Your task to perform on an android device: Open CNN.com Image 0: 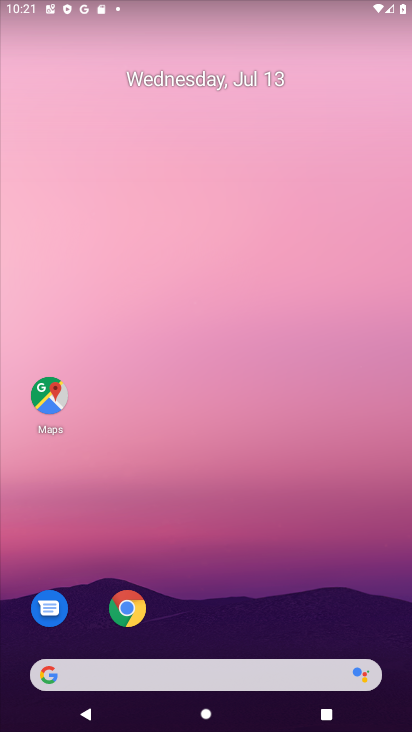
Step 0: click (128, 608)
Your task to perform on an android device: Open CNN.com Image 1: 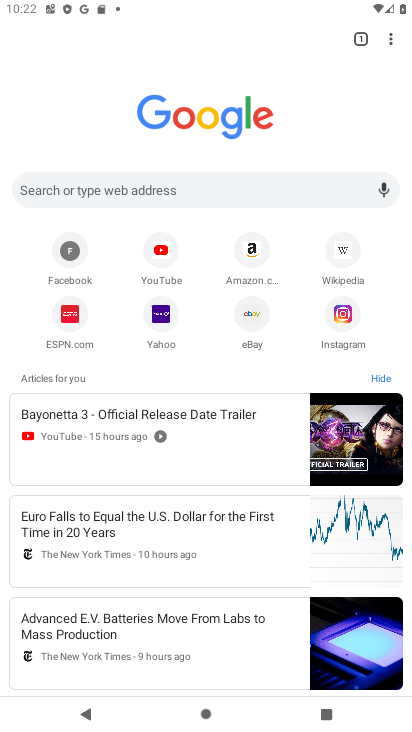
Step 1: click (251, 192)
Your task to perform on an android device: Open CNN.com Image 2: 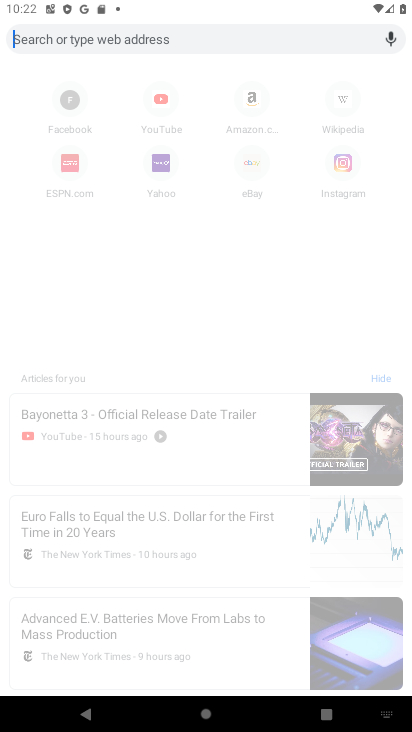
Step 2: type "CNN.com"
Your task to perform on an android device: Open CNN.com Image 3: 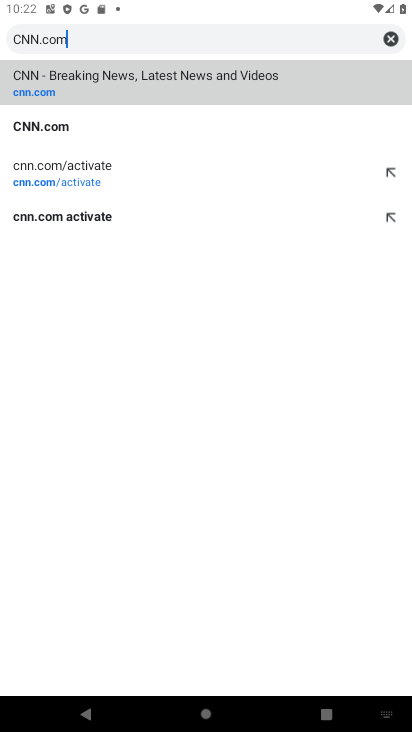
Step 3: type ""
Your task to perform on an android device: Open CNN.com Image 4: 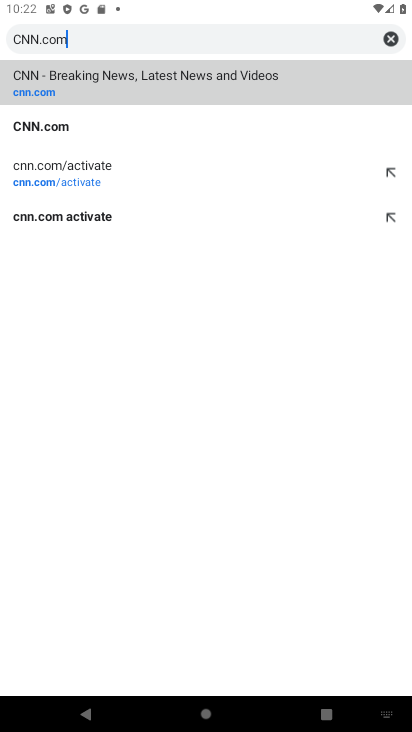
Step 4: click (57, 129)
Your task to perform on an android device: Open CNN.com Image 5: 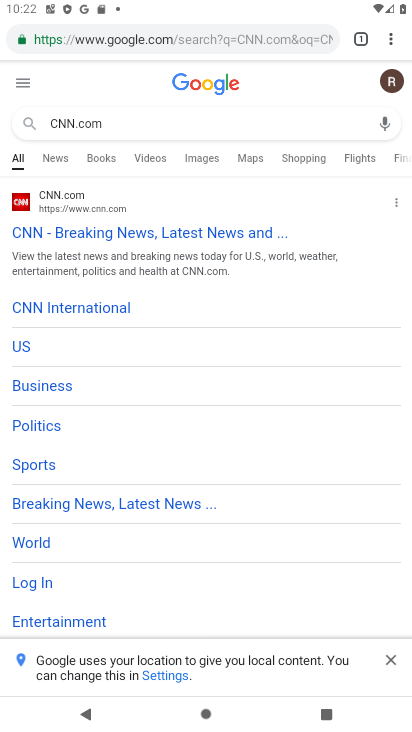
Step 5: click (119, 238)
Your task to perform on an android device: Open CNN.com Image 6: 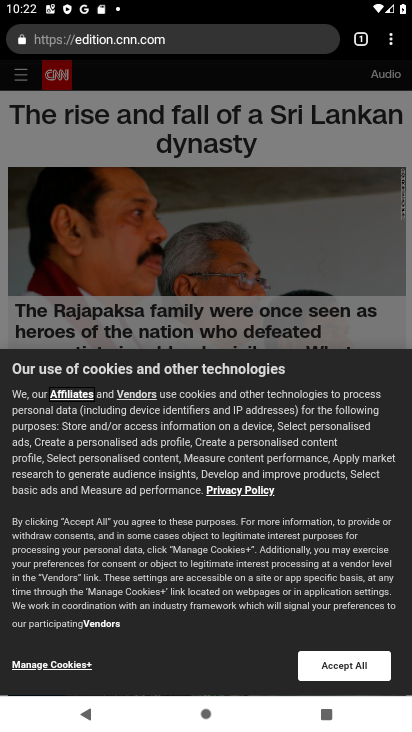
Step 6: click (321, 665)
Your task to perform on an android device: Open CNN.com Image 7: 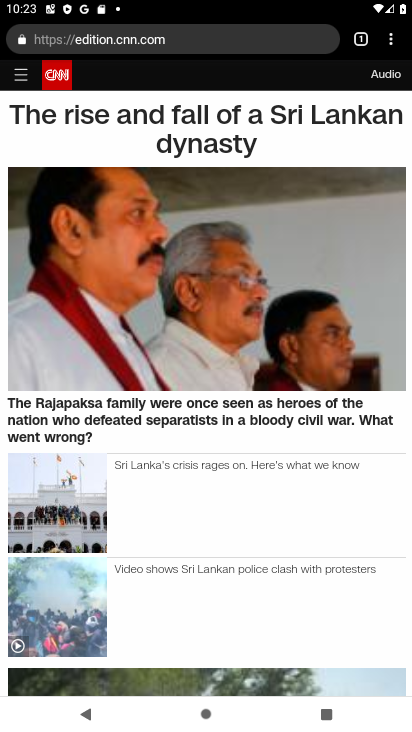
Step 7: task complete